Your task to perform on an android device: turn notification dots off Image 0: 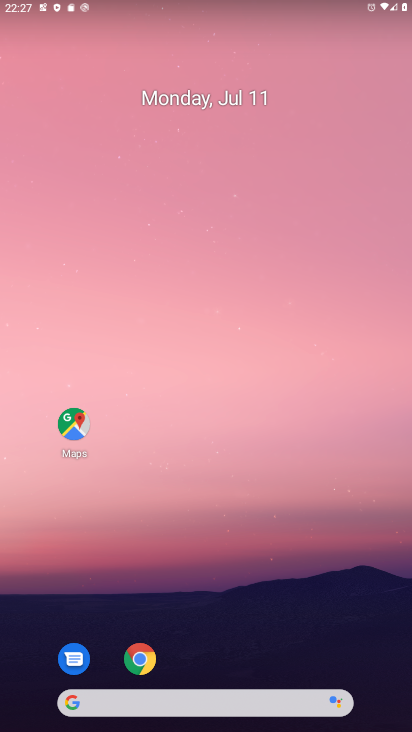
Step 0: drag from (188, 657) to (219, 0)
Your task to perform on an android device: turn notification dots off Image 1: 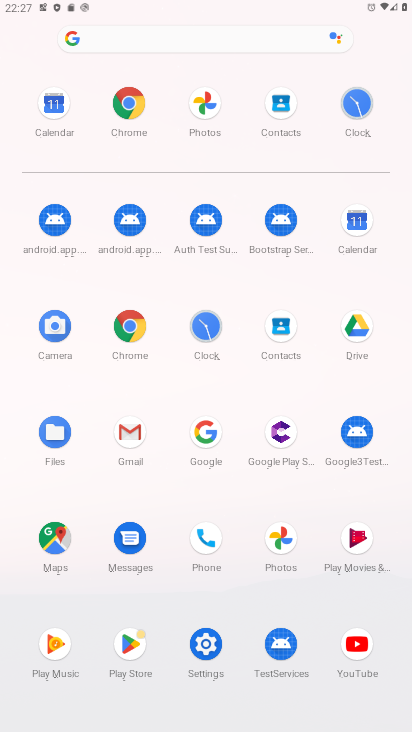
Step 1: click (208, 638)
Your task to perform on an android device: turn notification dots off Image 2: 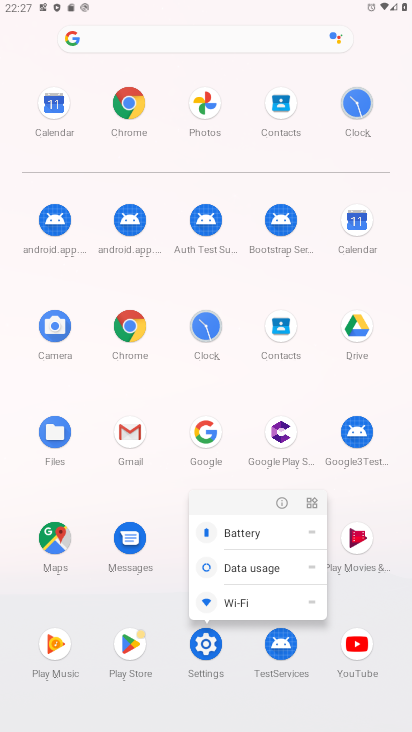
Step 2: click (275, 500)
Your task to perform on an android device: turn notification dots off Image 3: 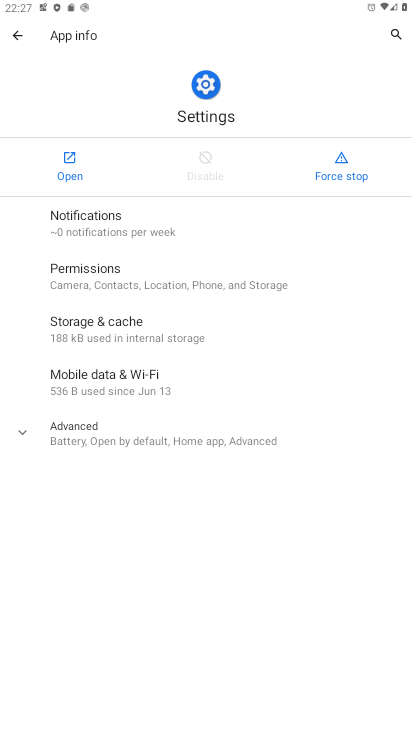
Step 3: click (60, 171)
Your task to perform on an android device: turn notification dots off Image 4: 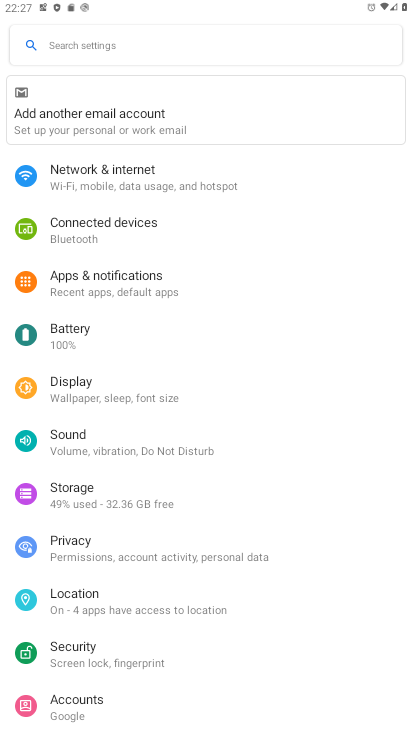
Step 4: click (134, 264)
Your task to perform on an android device: turn notification dots off Image 5: 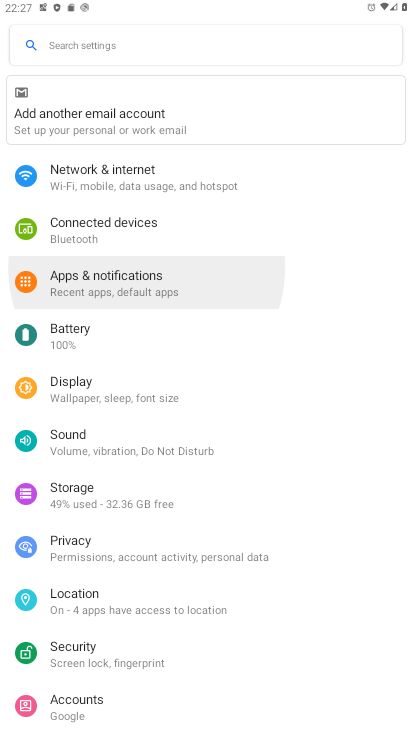
Step 5: click (149, 275)
Your task to perform on an android device: turn notification dots off Image 6: 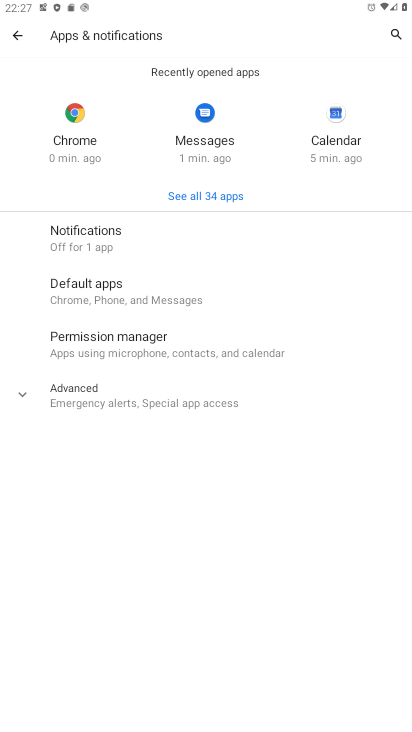
Step 6: drag from (178, 524) to (255, 225)
Your task to perform on an android device: turn notification dots off Image 7: 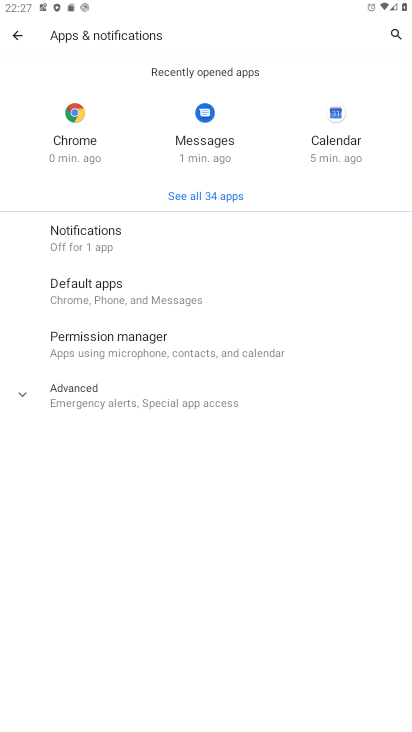
Step 7: click (140, 240)
Your task to perform on an android device: turn notification dots off Image 8: 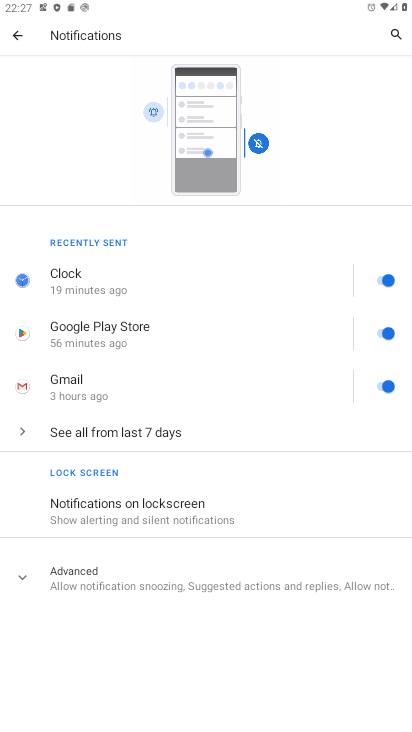
Step 8: drag from (207, 557) to (242, 175)
Your task to perform on an android device: turn notification dots off Image 9: 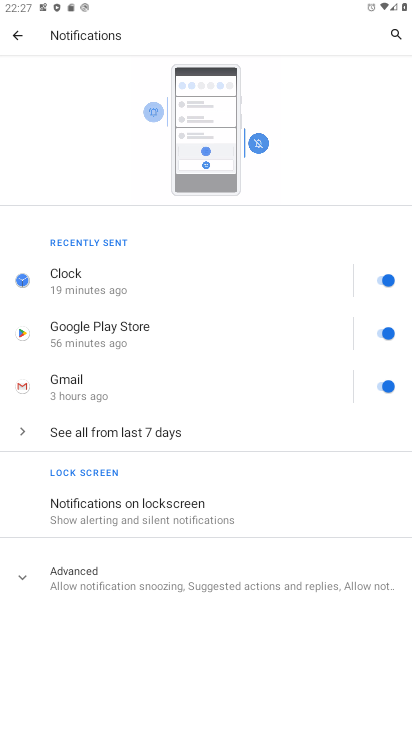
Step 9: click (138, 574)
Your task to perform on an android device: turn notification dots off Image 10: 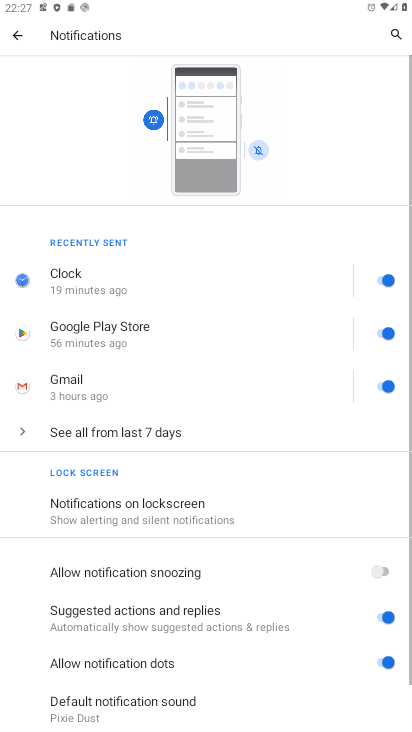
Step 10: drag from (154, 601) to (254, 307)
Your task to perform on an android device: turn notification dots off Image 11: 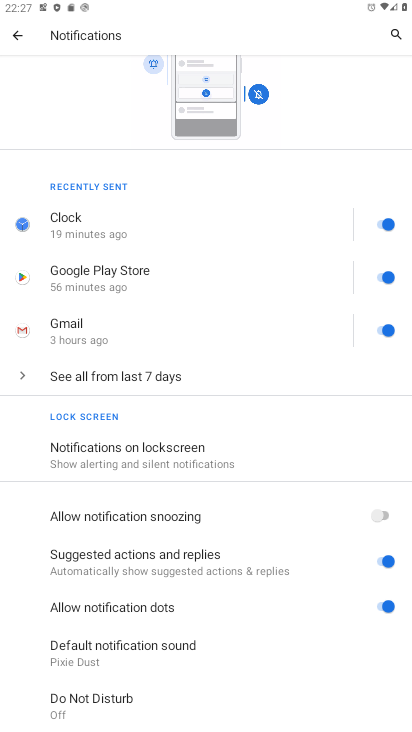
Step 11: click (381, 604)
Your task to perform on an android device: turn notification dots off Image 12: 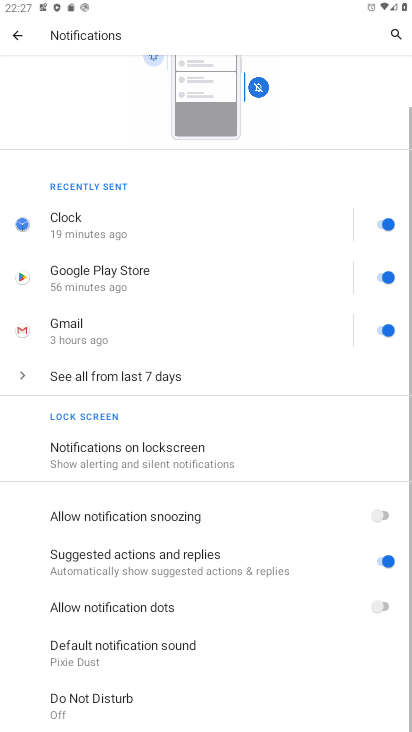
Step 12: task complete